Your task to perform on an android device: Set the phone to "Do not disturb". Image 0: 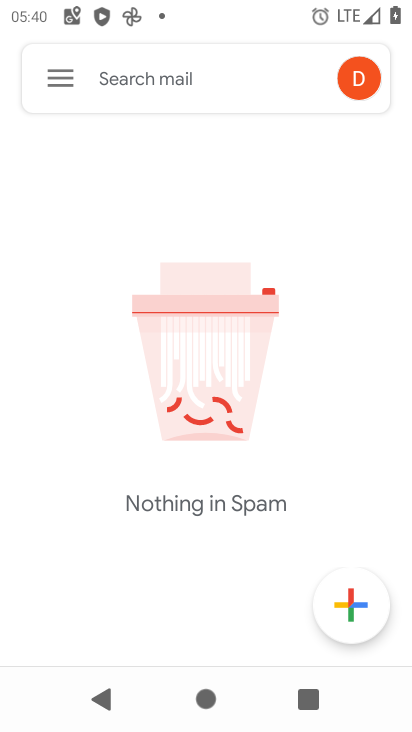
Step 0: drag from (360, 551) to (311, 382)
Your task to perform on an android device: Set the phone to "Do not disturb". Image 1: 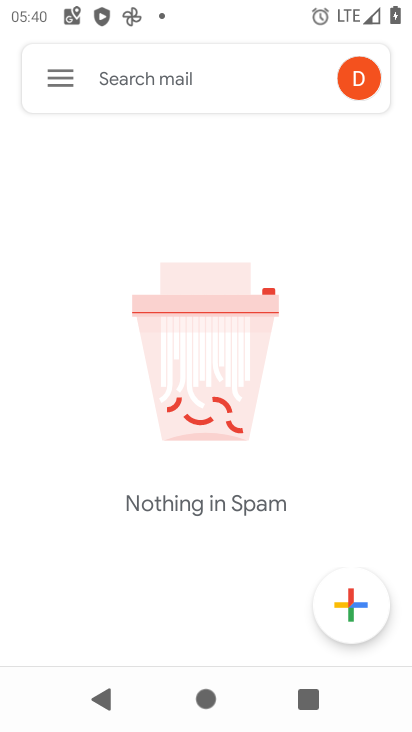
Step 1: press home button
Your task to perform on an android device: Set the phone to "Do not disturb". Image 2: 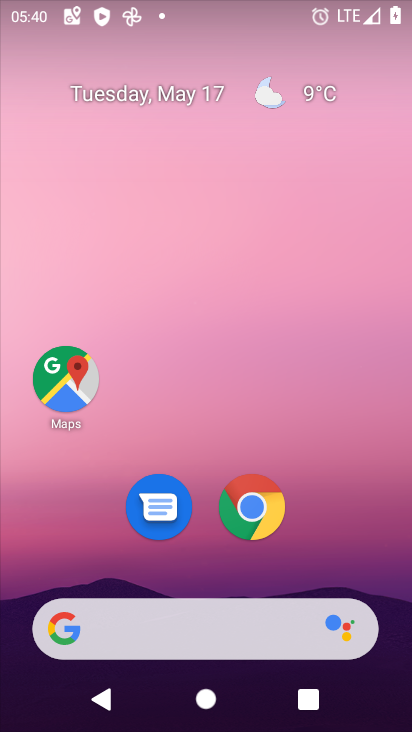
Step 2: drag from (306, 518) to (217, 33)
Your task to perform on an android device: Set the phone to "Do not disturb". Image 3: 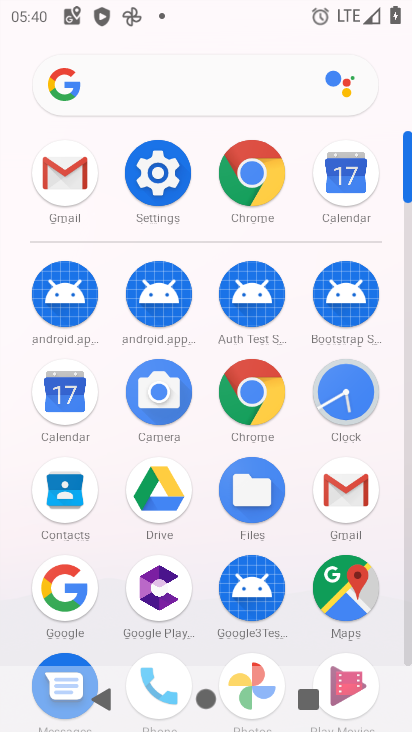
Step 3: click (172, 184)
Your task to perform on an android device: Set the phone to "Do not disturb". Image 4: 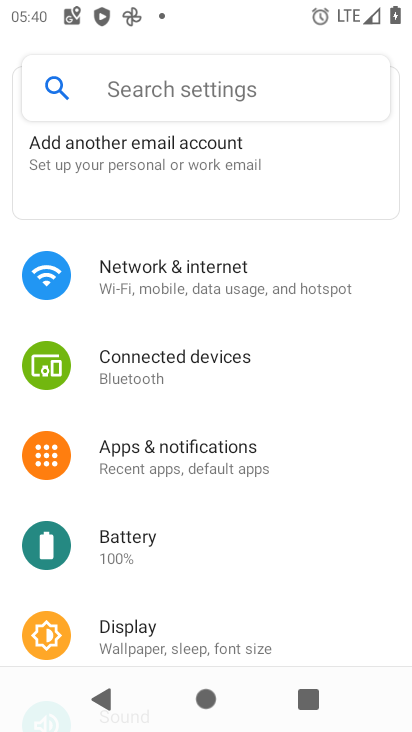
Step 4: drag from (208, 569) to (194, 216)
Your task to perform on an android device: Set the phone to "Do not disturb". Image 5: 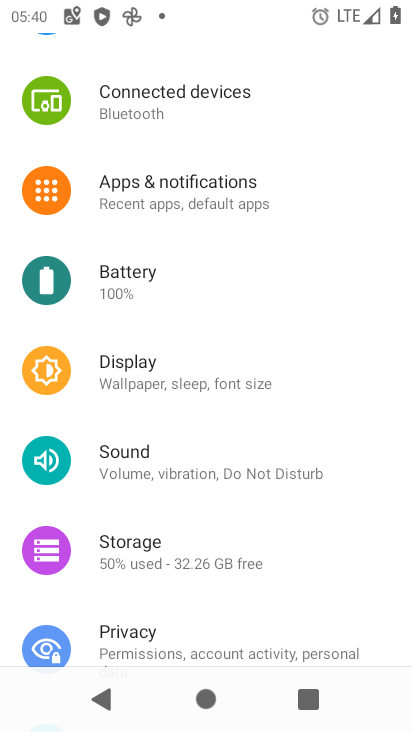
Step 5: click (218, 455)
Your task to perform on an android device: Set the phone to "Do not disturb". Image 6: 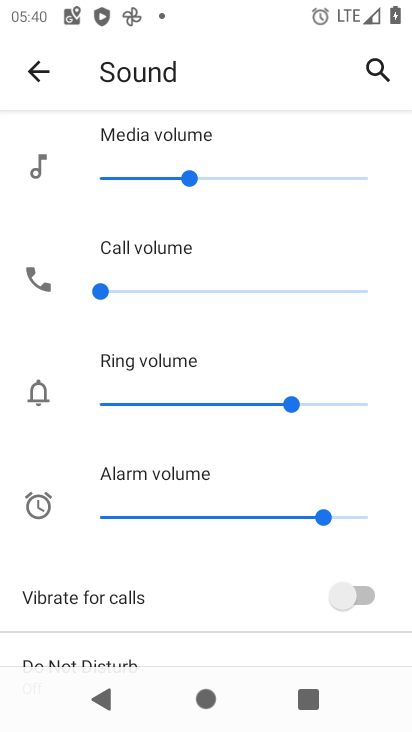
Step 6: drag from (200, 578) to (221, 208)
Your task to perform on an android device: Set the phone to "Do not disturb". Image 7: 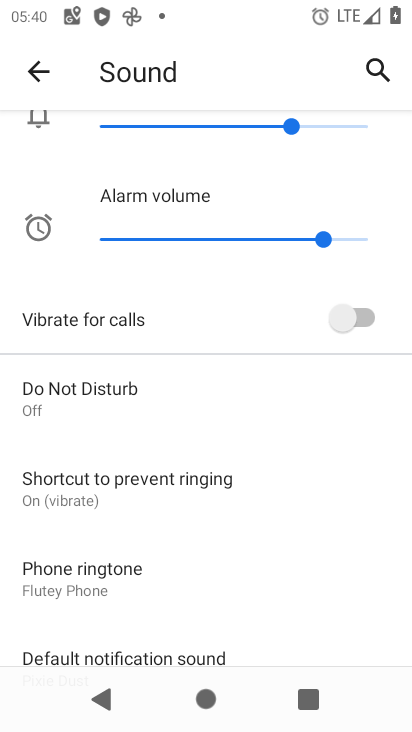
Step 7: click (166, 396)
Your task to perform on an android device: Set the phone to "Do not disturb". Image 8: 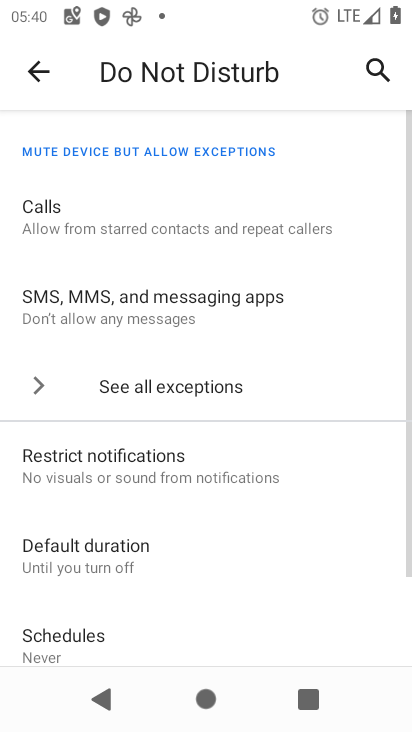
Step 8: drag from (252, 597) to (238, 139)
Your task to perform on an android device: Set the phone to "Do not disturb". Image 9: 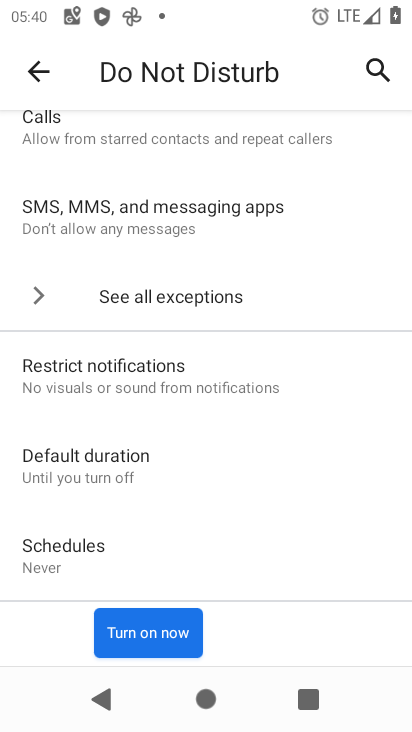
Step 9: click (175, 628)
Your task to perform on an android device: Set the phone to "Do not disturb". Image 10: 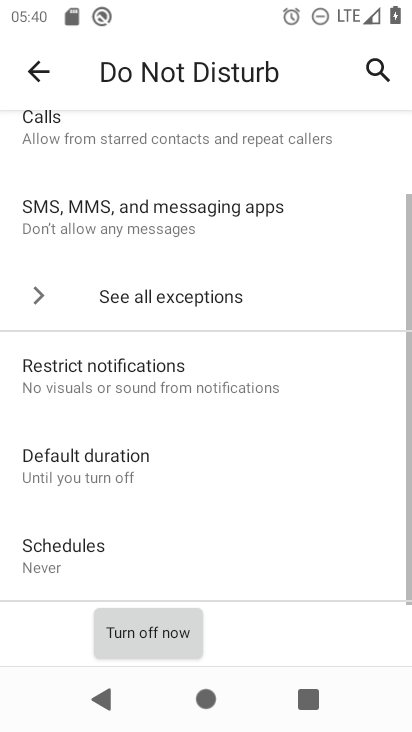
Step 10: task complete